Your task to perform on an android device: Go to calendar. Show me events next week Image 0: 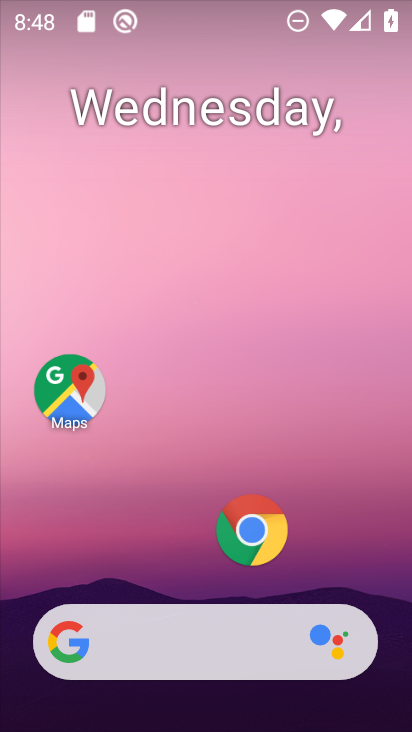
Step 0: drag from (146, 551) to (215, 200)
Your task to perform on an android device: Go to calendar. Show me events next week Image 1: 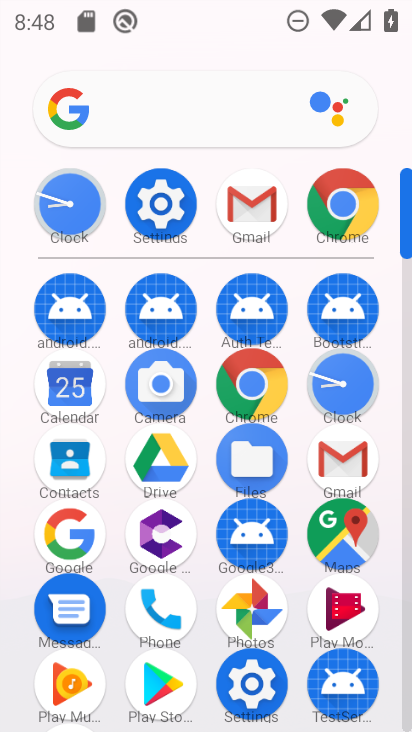
Step 1: click (55, 394)
Your task to perform on an android device: Go to calendar. Show me events next week Image 2: 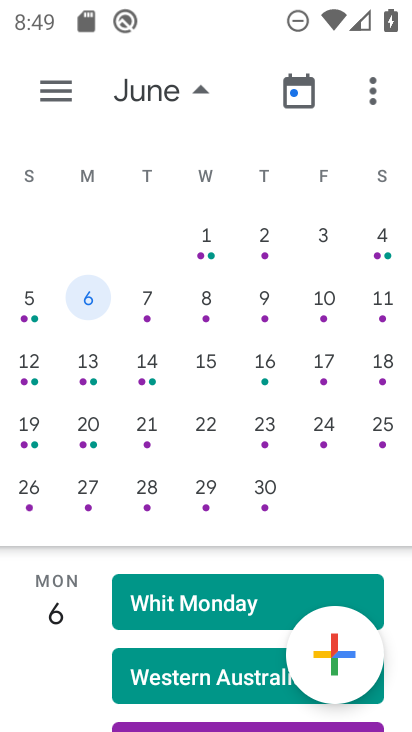
Step 2: drag from (28, 427) to (395, 378)
Your task to perform on an android device: Go to calendar. Show me events next week Image 3: 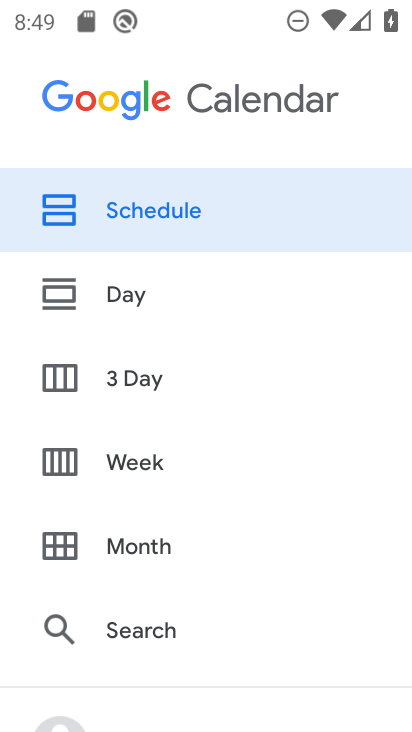
Step 3: drag from (399, 421) to (54, 410)
Your task to perform on an android device: Go to calendar. Show me events next week Image 4: 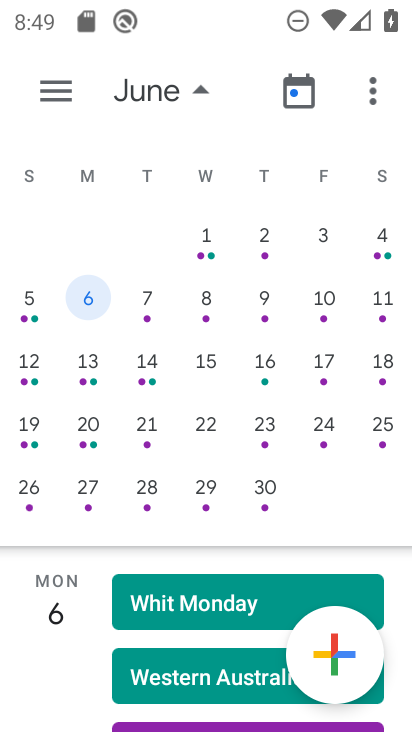
Step 4: drag from (94, 381) to (372, 348)
Your task to perform on an android device: Go to calendar. Show me events next week Image 5: 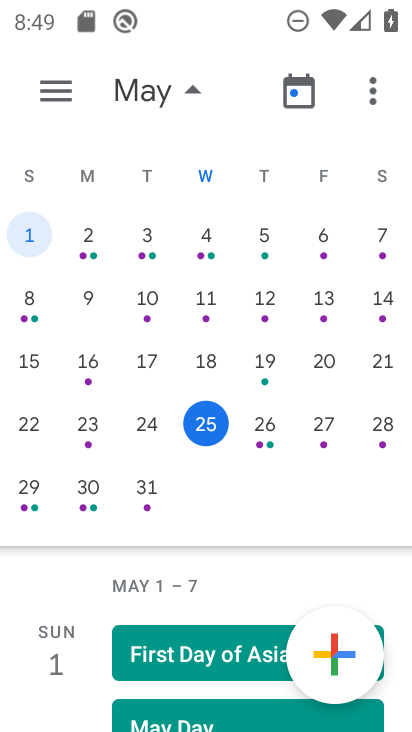
Step 5: click (82, 494)
Your task to perform on an android device: Go to calendar. Show me events next week Image 6: 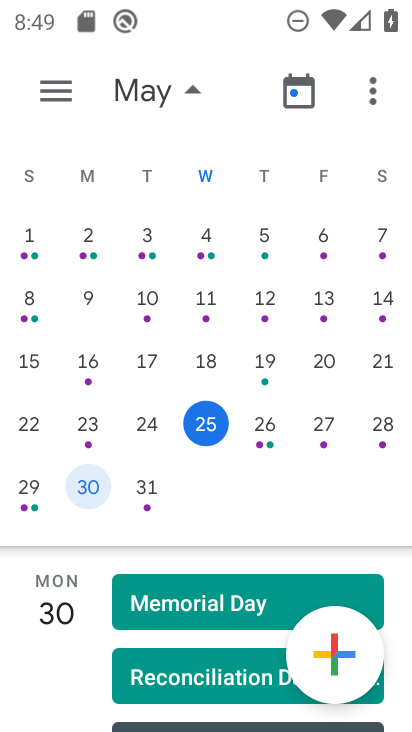
Step 6: click (175, 609)
Your task to perform on an android device: Go to calendar. Show me events next week Image 7: 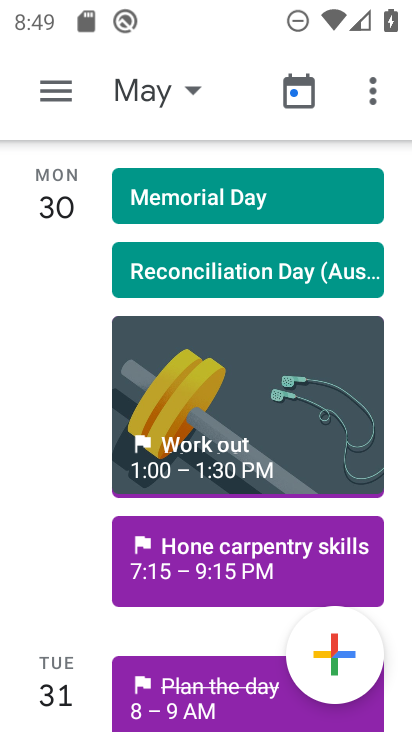
Step 7: task complete